Your task to perform on an android device: Open Youtube and go to "Your channel" Image 0: 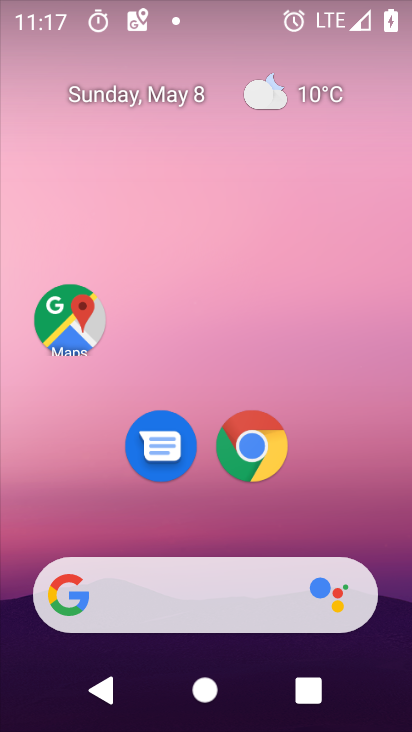
Step 0: drag from (376, 552) to (406, 54)
Your task to perform on an android device: Open Youtube and go to "Your channel" Image 1: 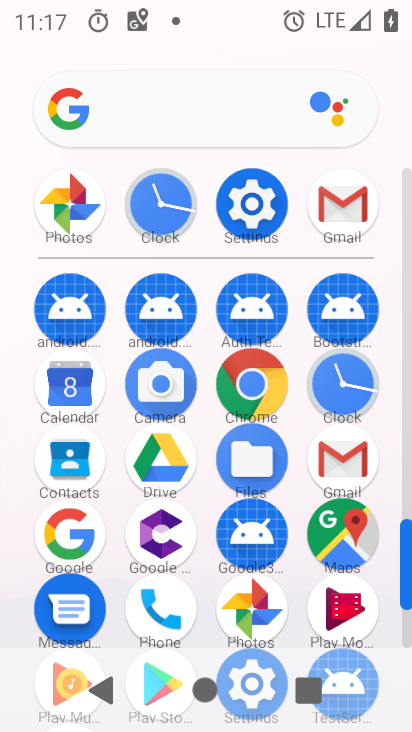
Step 1: drag from (409, 449) to (409, 414)
Your task to perform on an android device: Open Youtube and go to "Your channel" Image 2: 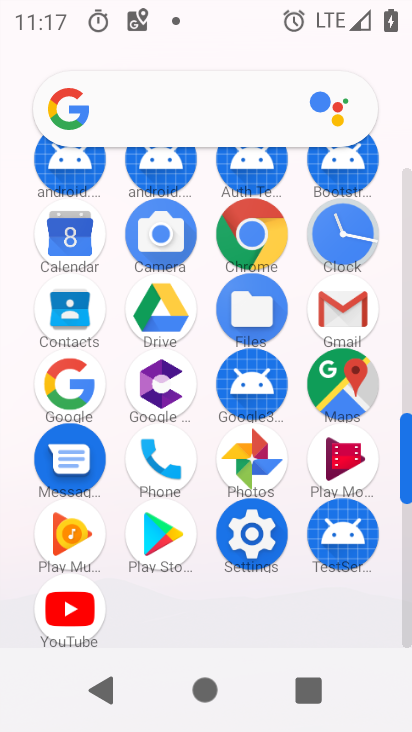
Step 2: click (70, 612)
Your task to perform on an android device: Open Youtube and go to "Your channel" Image 3: 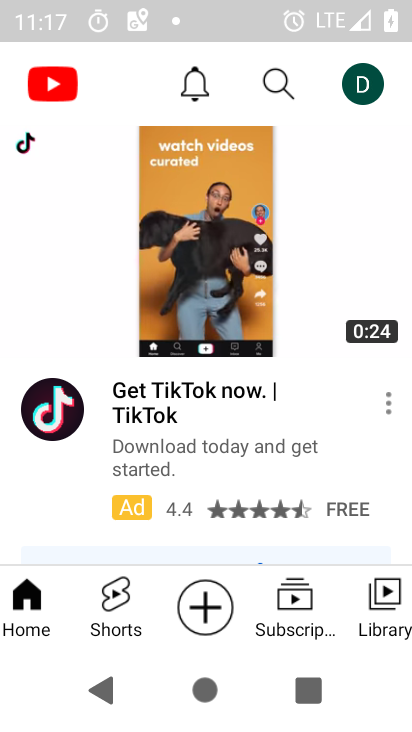
Step 3: click (369, 91)
Your task to perform on an android device: Open Youtube and go to "Your channel" Image 4: 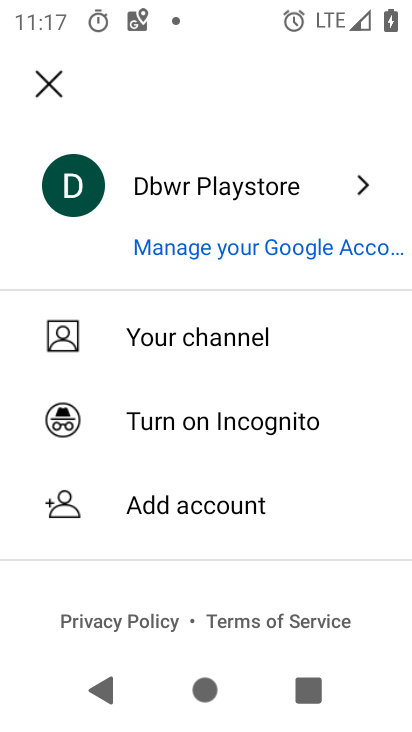
Step 4: click (189, 336)
Your task to perform on an android device: Open Youtube and go to "Your channel" Image 5: 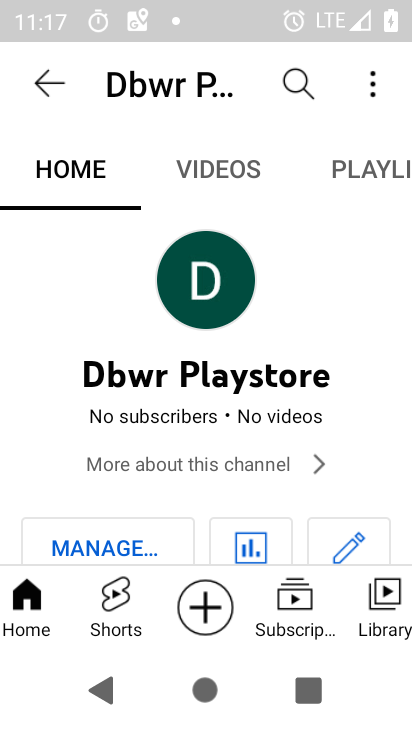
Step 5: task complete